Your task to perform on an android device: open app "Duolingo: language lessons" Image 0: 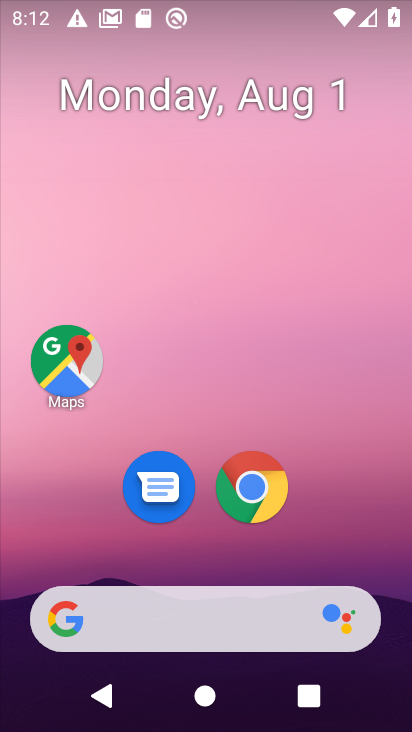
Step 0: press home button
Your task to perform on an android device: open app "Duolingo: language lessons" Image 1: 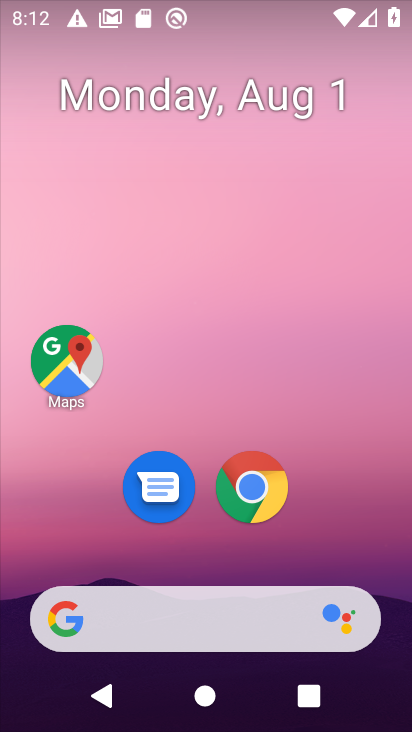
Step 1: drag from (372, 562) to (338, 87)
Your task to perform on an android device: open app "Duolingo: language lessons" Image 2: 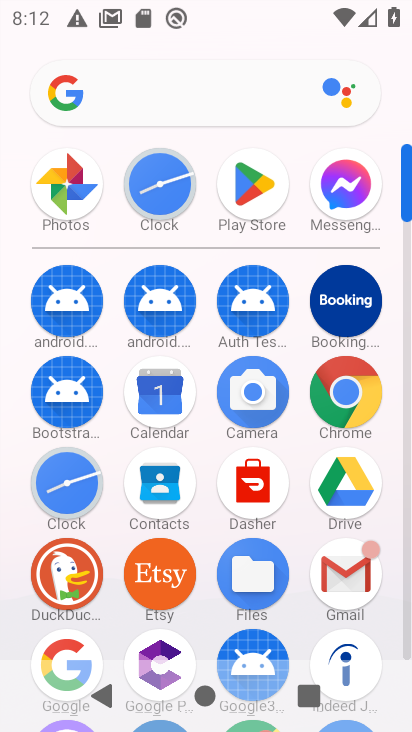
Step 2: click (266, 187)
Your task to perform on an android device: open app "Duolingo: language lessons" Image 3: 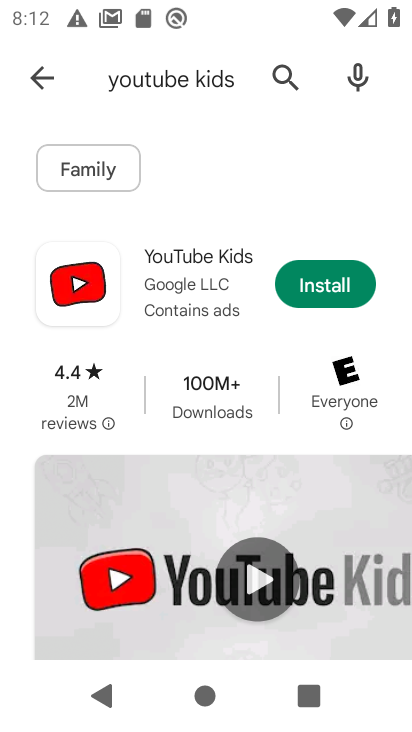
Step 3: click (281, 73)
Your task to perform on an android device: open app "Duolingo: language lessons" Image 4: 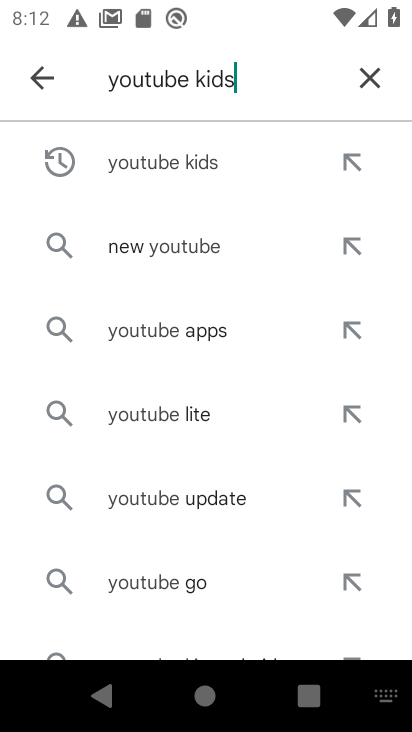
Step 4: click (366, 77)
Your task to perform on an android device: open app "Duolingo: language lessons" Image 5: 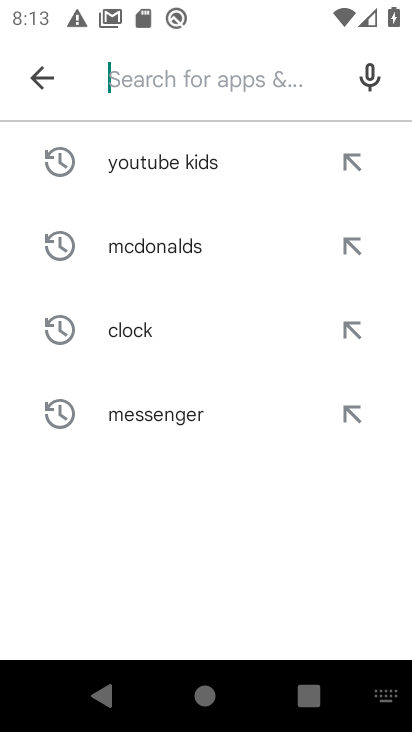
Step 5: type "Duolingo: language lessons"
Your task to perform on an android device: open app "Duolingo: language lessons" Image 6: 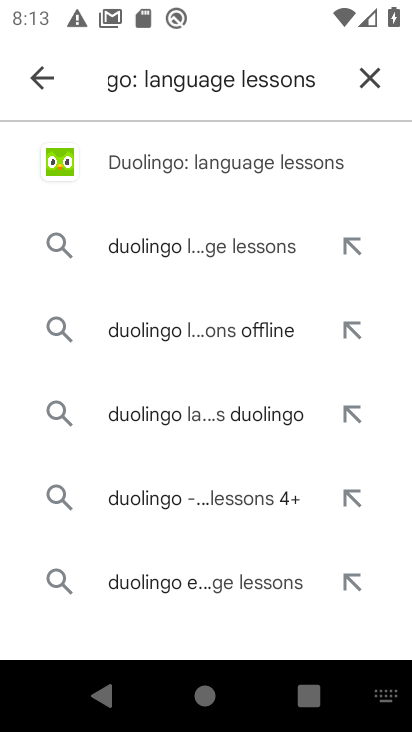
Step 6: click (248, 173)
Your task to perform on an android device: open app "Duolingo: language lessons" Image 7: 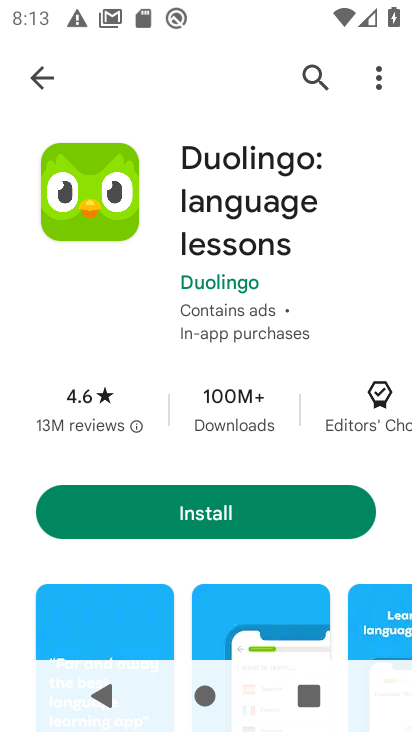
Step 7: task complete